Your task to perform on an android device: Search for pizza restaurants on Maps Image 0: 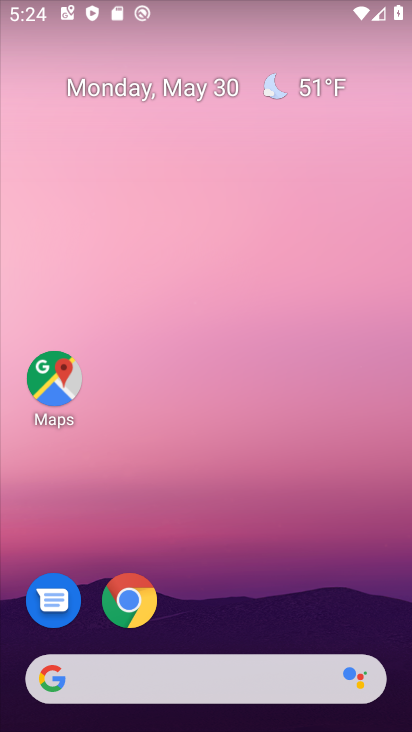
Step 0: drag from (269, 635) to (231, 170)
Your task to perform on an android device: Search for pizza restaurants on Maps Image 1: 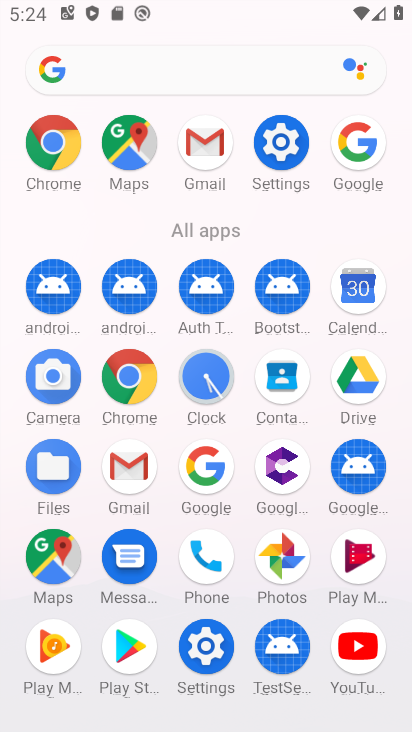
Step 1: click (46, 553)
Your task to perform on an android device: Search for pizza restaurants on Maps Image 2: 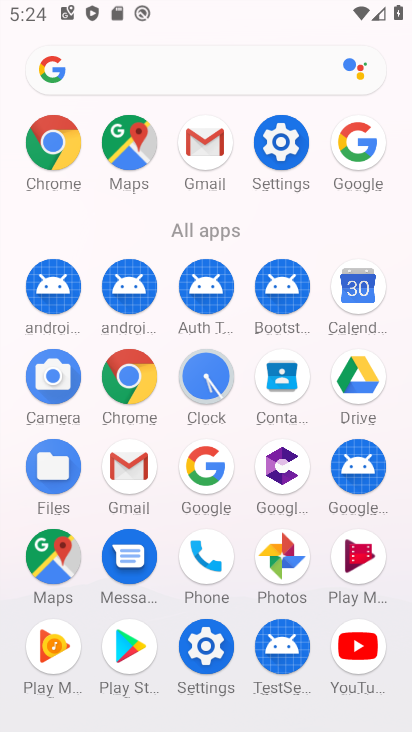
Step 2: click (49, 555)
Your task to perform on an android device: Search for pizza restaurants on Maps Image 3: 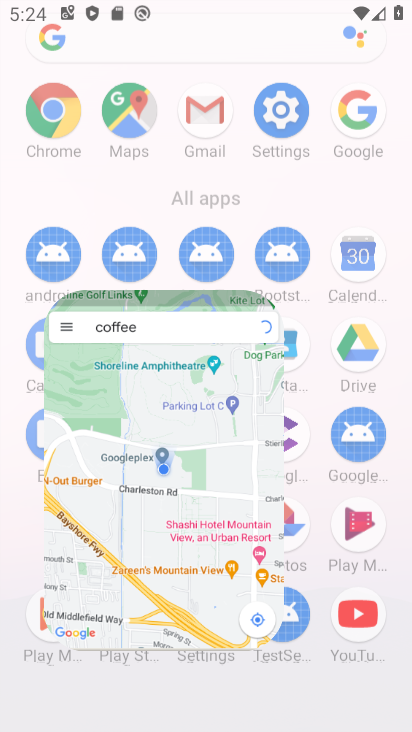
Step 3: click (49, 555)
Your task to perform on an android device: Search for pizza restaurants on Maps Image 4: 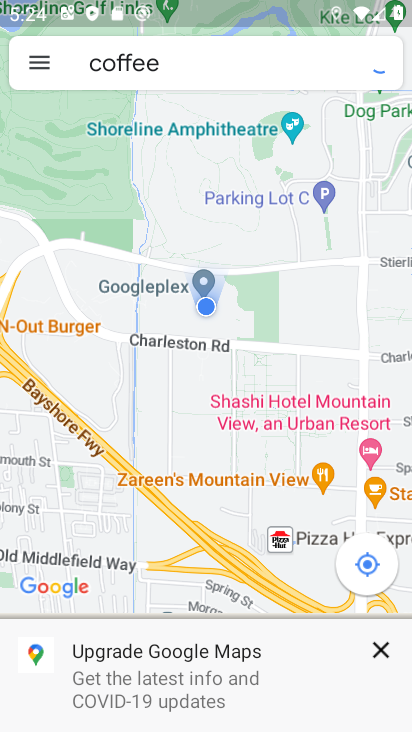
Step 4: click (177, 62)
Your task to perform on an android device: Search for pizza restaurants on Maps Image 5: 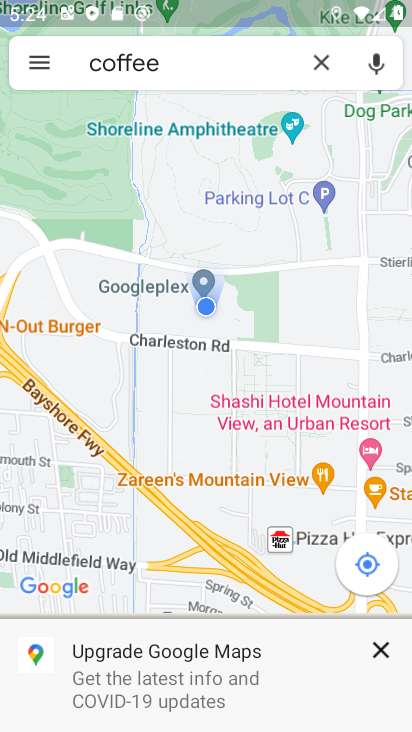
Step 5: click (174, 66)
Your task to perform on an android device: Search for pizza restaurants on Maps Image 6: 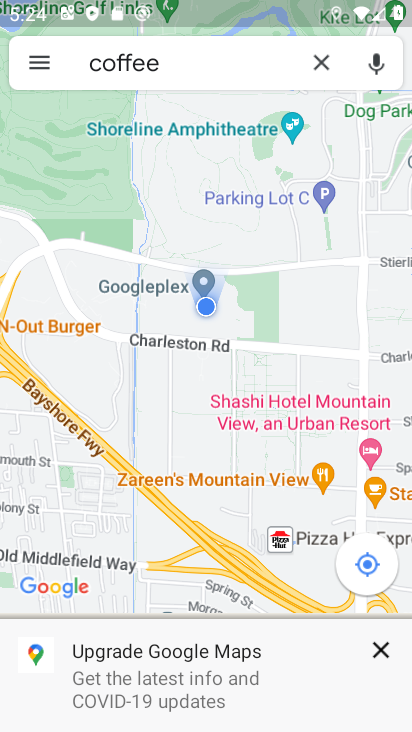
Step 6: click (174, 67)
Your task to perform on an android device: Search for pizza restaurants on Maps Image 7: 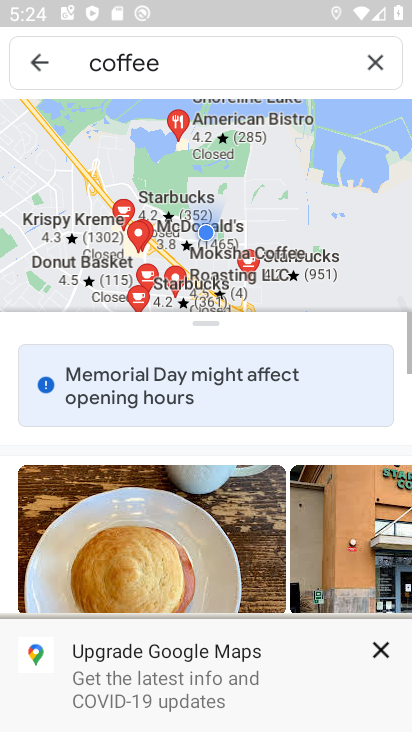
Step 7: click (311, 54)
Your task to perform on an android device: Search for pizza restaurants on Maps Image 8: 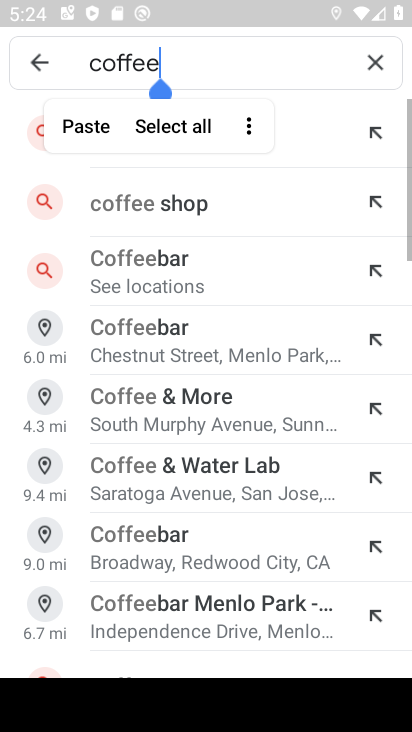
Step 8: click (372, 66)
Your task to perform on an android device: Search for pizza restaurants on Maps Image 9: 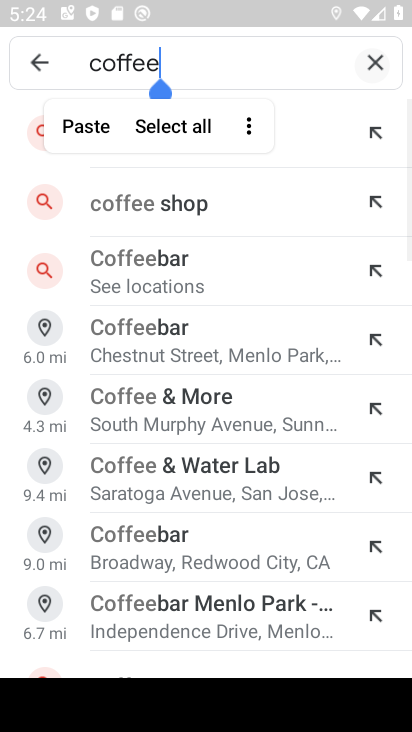
Step 9: click (376, 61)
Your task to perform on an android device: Search for pizza restaurants on Maps Image 10: 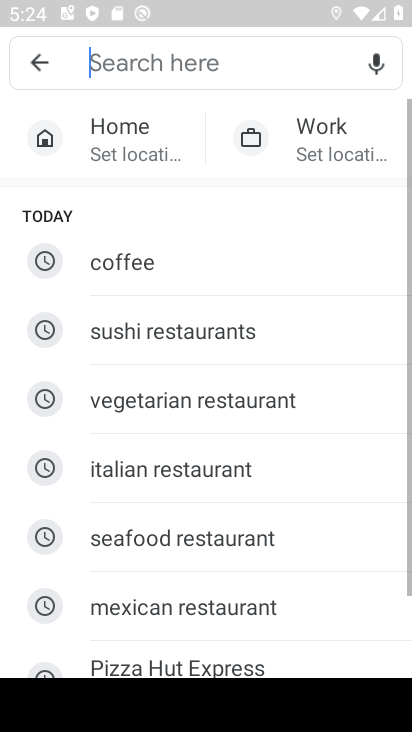
Step 10: click (376, 60)
Your task to perform on an android device: Search for pizza restaurants on Maps Image 11: 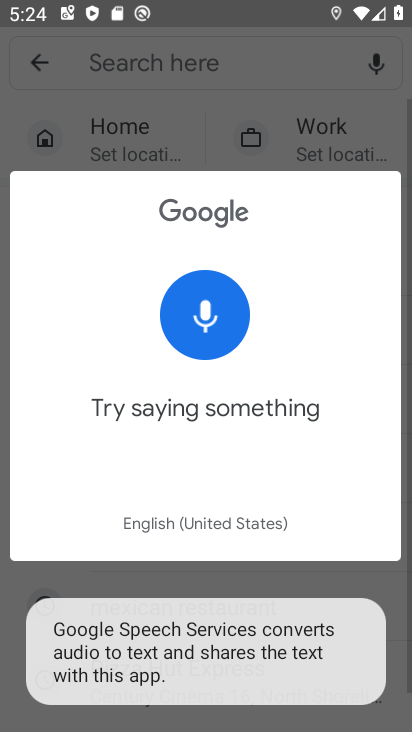
Step 11: click (268, 110)
Your task to perform on an android device: Search for pizza restaurants on Maps Image 12: 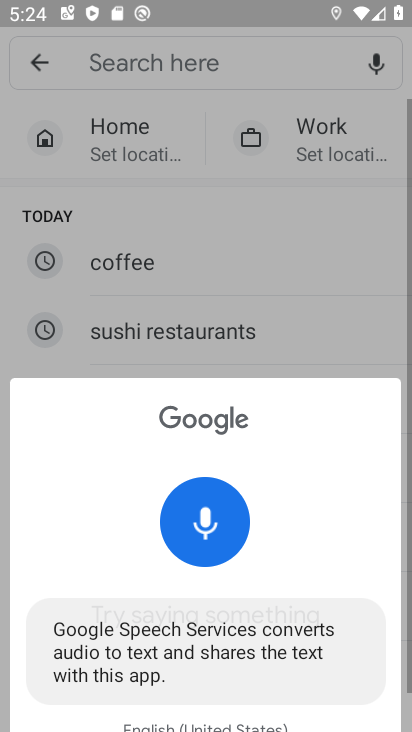
Step 12: click (98, 51)
Your task to perform on an android device: Search for pizza restaurants on Maps Image 13: 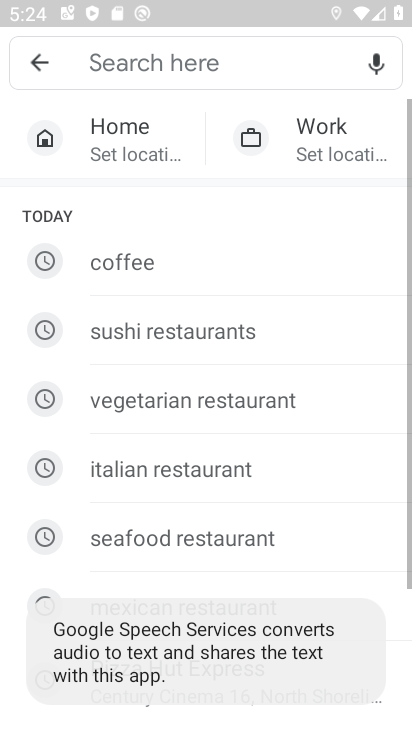
Step 13: click (92, 54)
Your task to perform on an android device: Search for pizza restaurants on Maps Image 14: 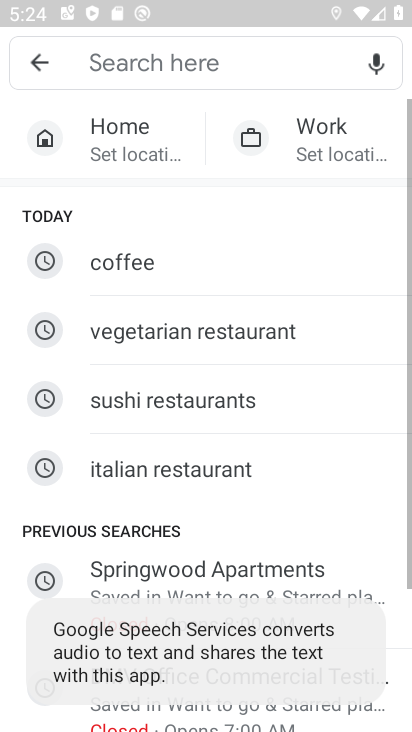
Step 14: click (93, 55)
Your task to perform on an android device: Search for pizza restaurants on Maps Image 15: 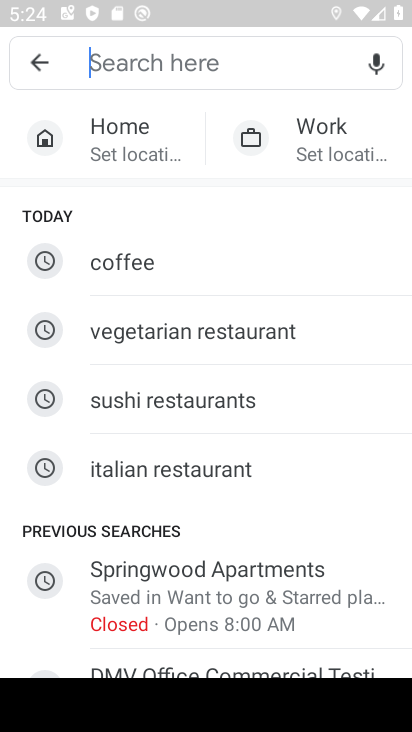
Step 15: type "pizza restaurants"
Your task to perform on an android device: Search for pizza restaurants on Maps Image 16: 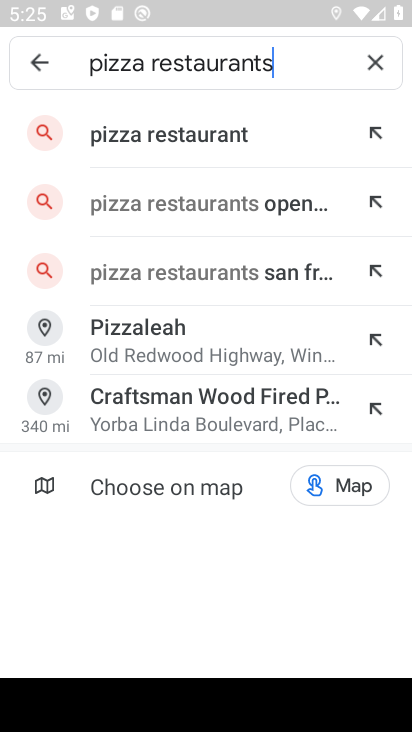
Step 16: click (154, 132)
Your task to perform on an android device: Search for pizza restaurants on Maps Image 17: 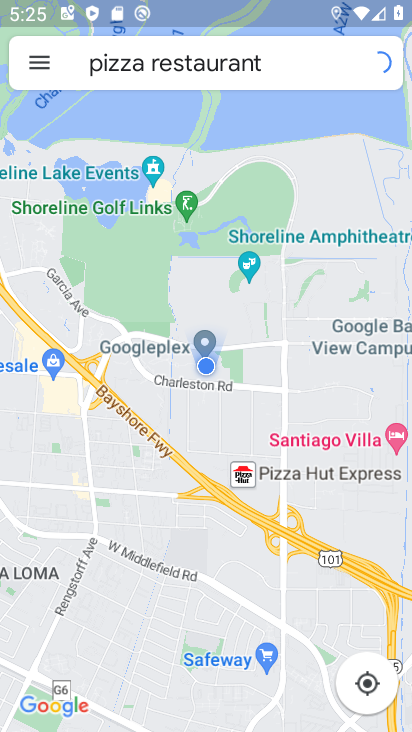
Step 17: task complete